Your task to perform on an android device: open wifi settings Image 0: 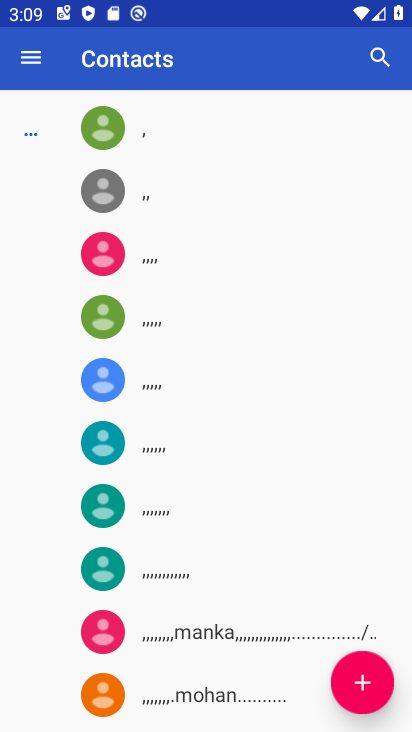
Step 0: press home button
Your task to perform on an android device: open wifi settings Image 1: 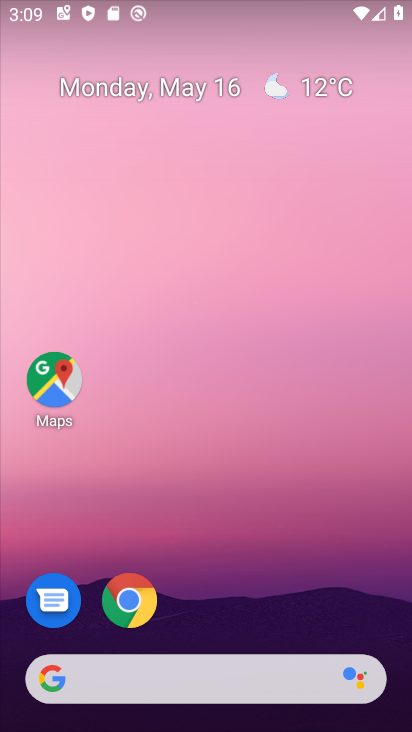
Step 1: drag from (180, 640) to (256, 45)
Your task to perform on an android device: open wifi settings Image 2: 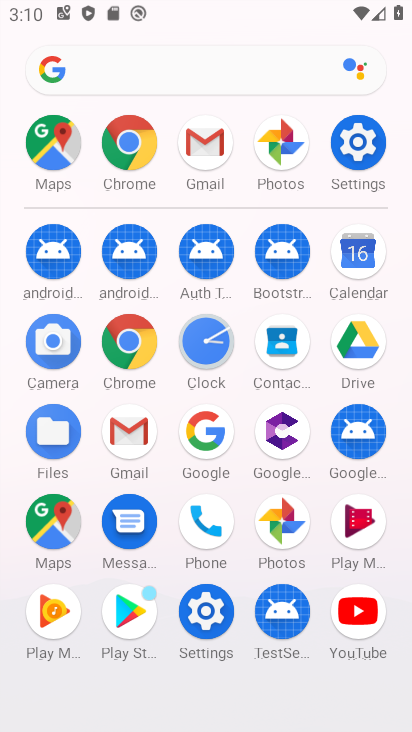
Step 2: click (352, 160)
Your task to perform on an android device: open wifi settings Image 3: 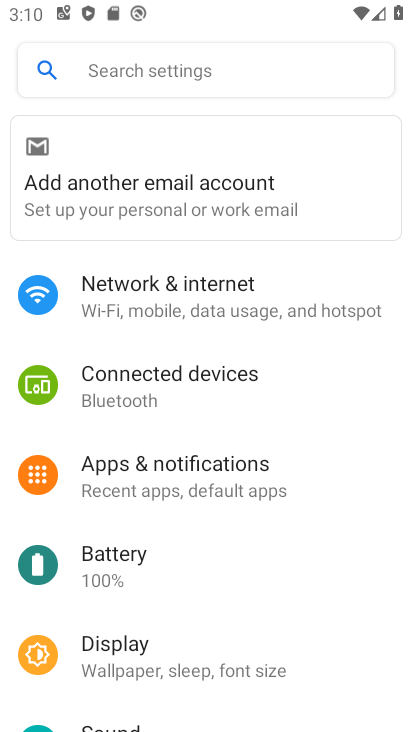
Step 3: click (159, 328)
Your task to perform on an android device: open wifi settings Image 4: 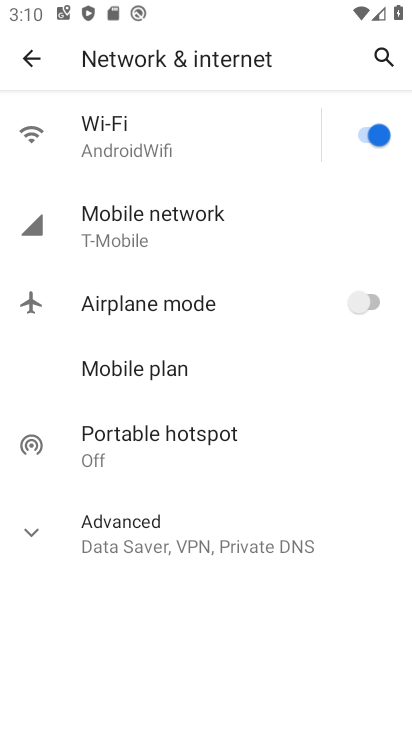
Step 4: click (161, 135)
Your task to perform on an android device: open wifi settings Image 5: 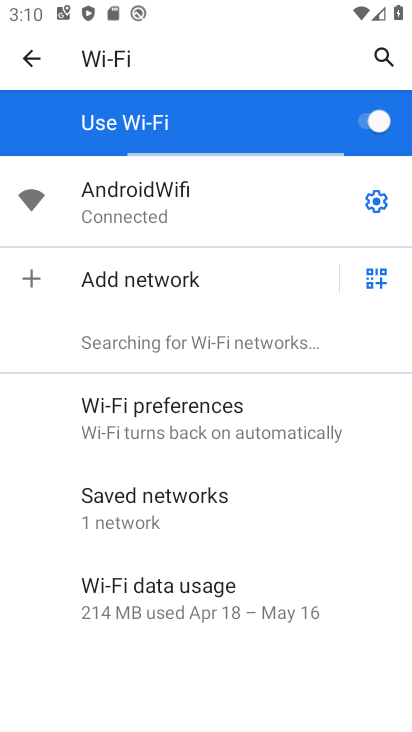
Step 5: task complete